Your task to perform on an android device: uninstall "PlayWell" Image 0: 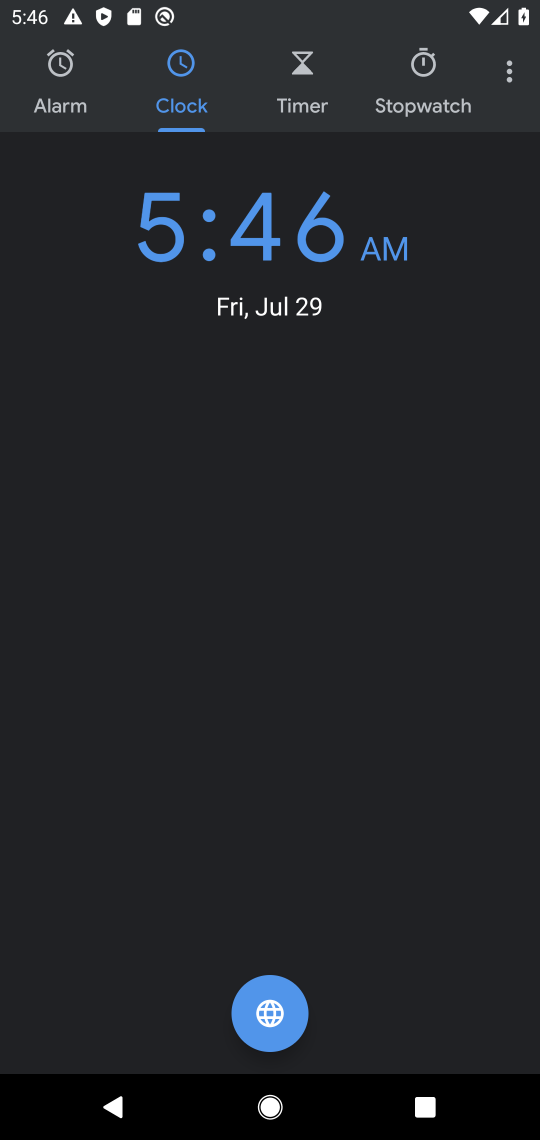
Step 0: press home button
Your task to perform on an android device: uninstall "PlayWell" Image 1: 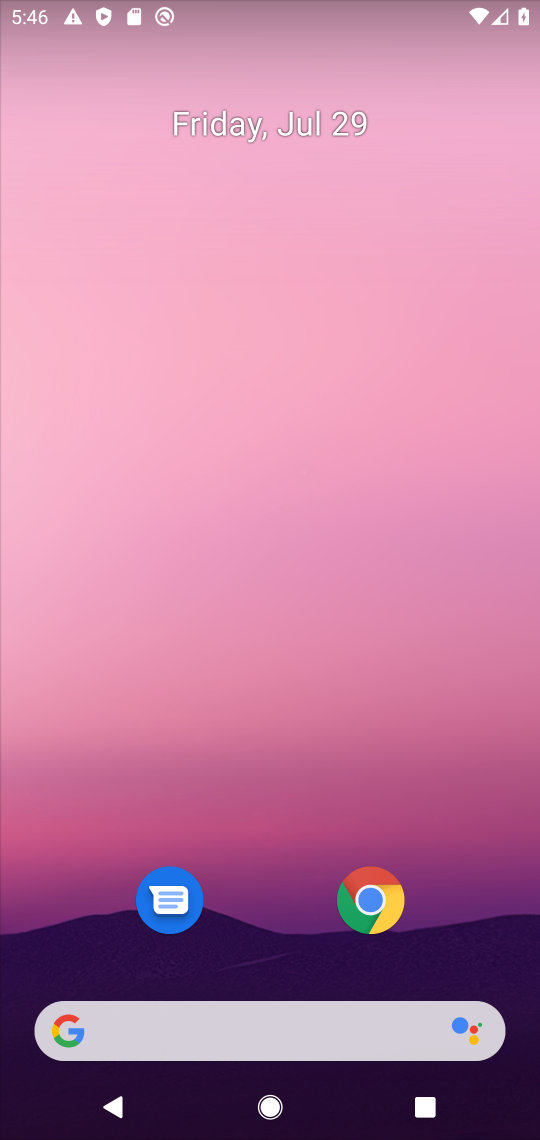
Step 1: drag from (332, 875) to (433, 59)
Your task to perform on an android device: uninstall "PlayWell" Image 2: 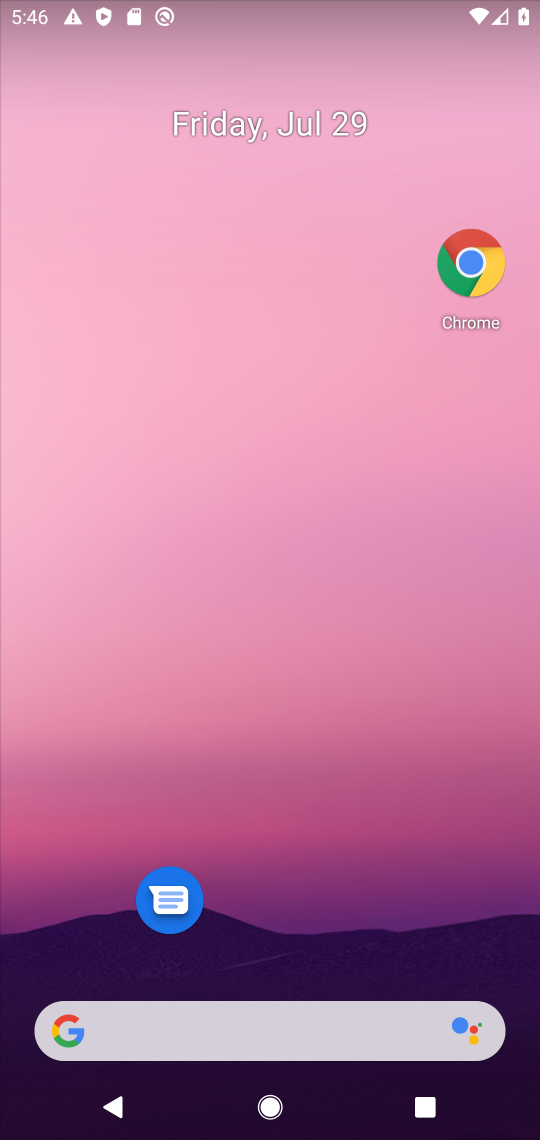
Step 2: drag from (260, 893) to (334, 127)
Your task to perform on an android device: uninstall "PlayWell" Image 3: 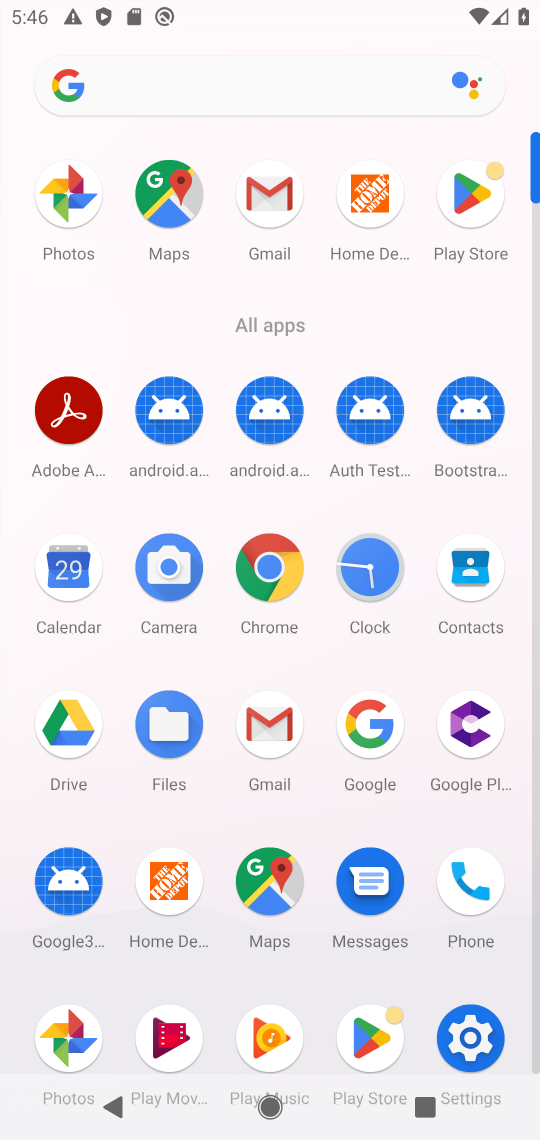
Step 3: click (470, 208)
Your task to perform on an android device: uninstall "PlayWell" Image 4: 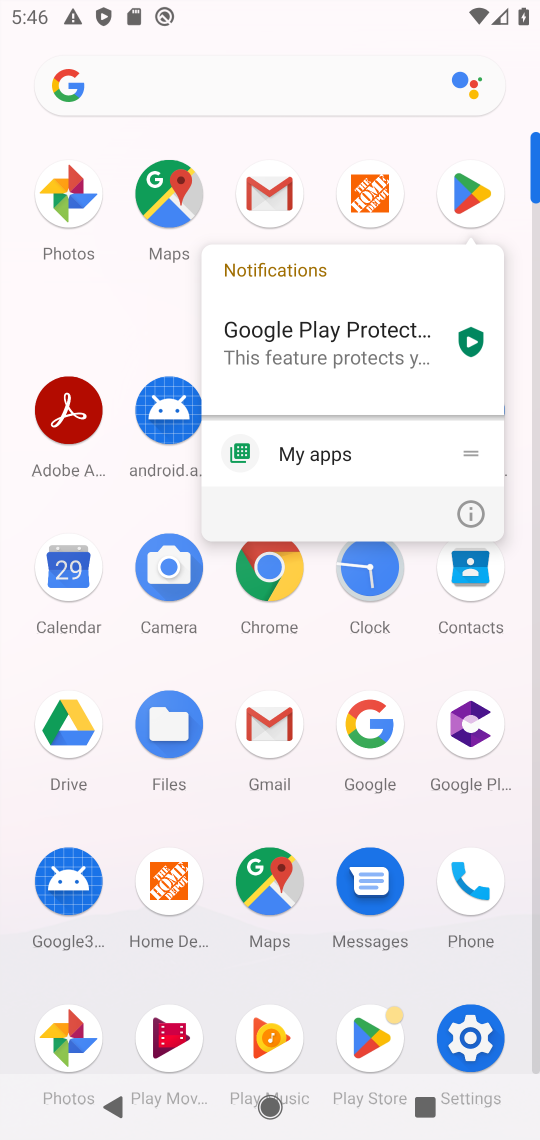
Step 4: click (470, 208)
Your task to perform on an android device: uninstall "PlayWell" Image 5: 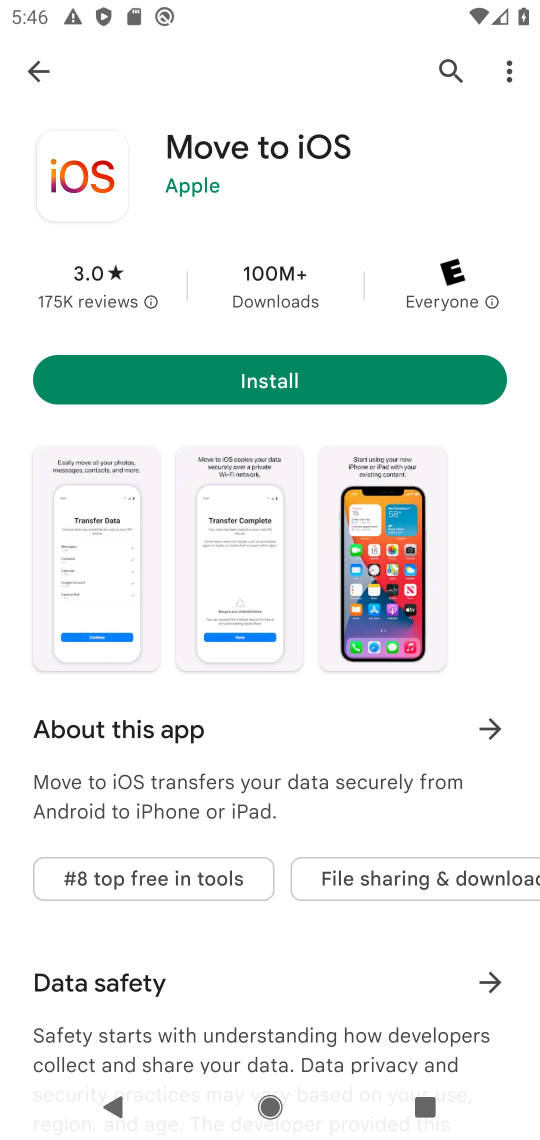
Step 5: click (452, 78)
Your task to perform on an android device: uninstall "PlayWell" Image 6: 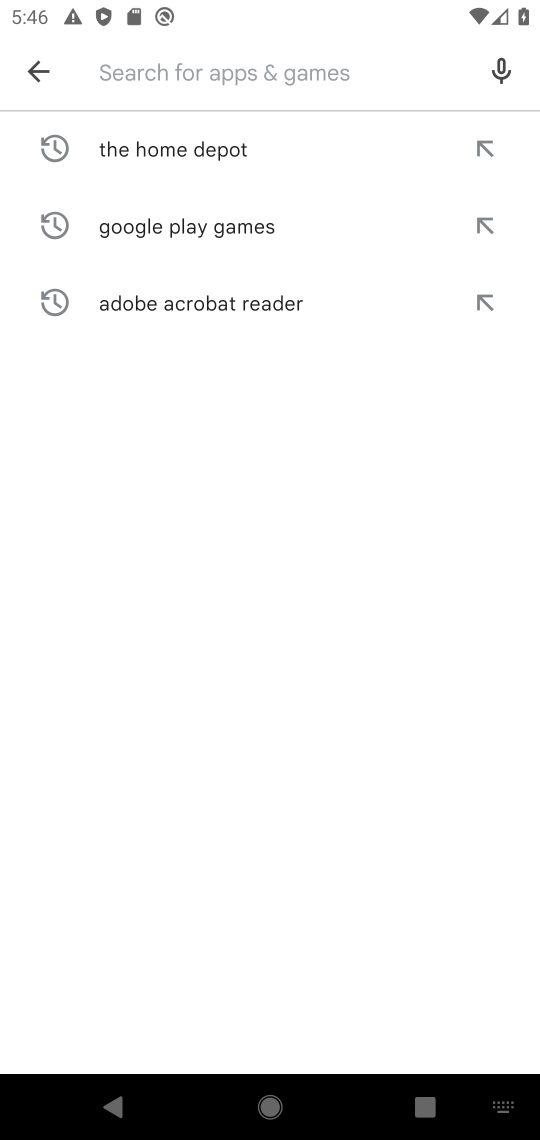
Step 6: type "playwell"
Your task to perform on an android device: uninstall "PlayWell" Image 7: 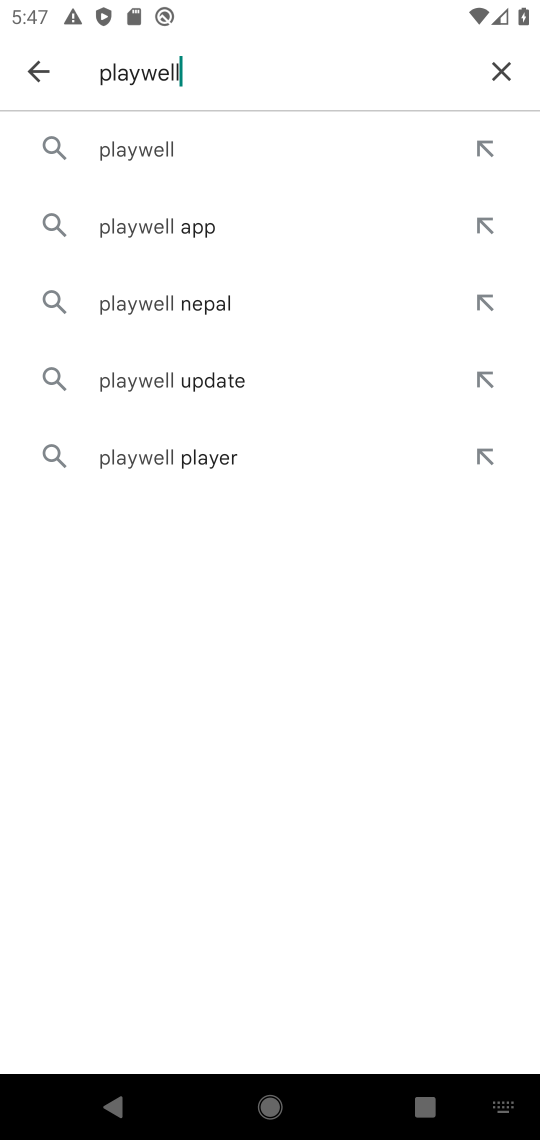
Step 7: click (164, 134)
Your task to perform on an android device: uninstall "PlayWell" Image 8: 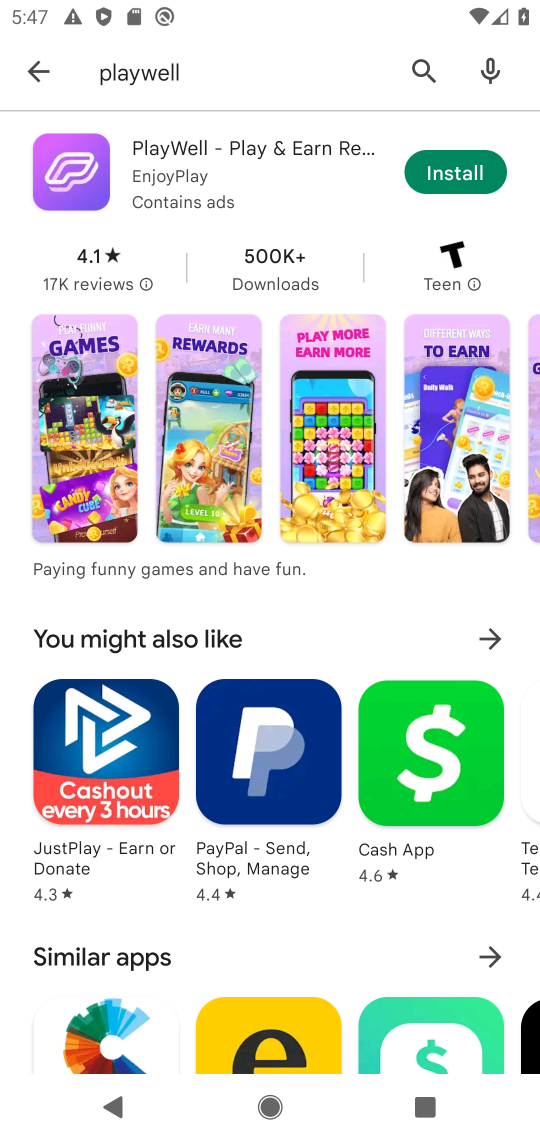
Step 8: task complete